Your task to perform on an android device: Search for the best rated wireless headphones on Amazon. Image 0: 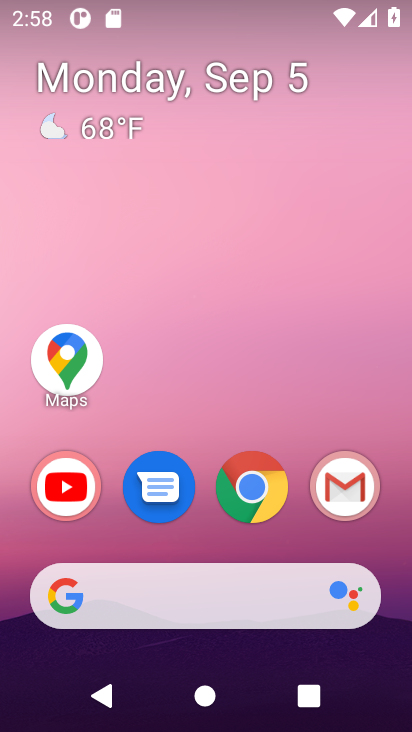
Step 0: click (246, 497)
Your task to perform on an android device: Search for the best rated wireless headphones on Amazon. Image 1: 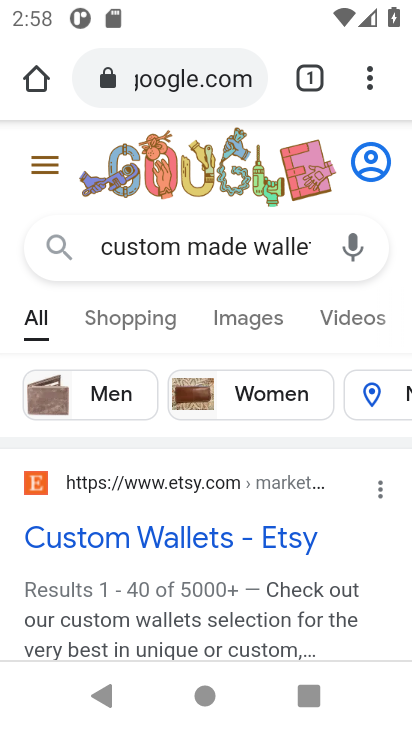
Step 1: click (176, 84)
Your task to perform on an android device: Search for the best rated wireless headphones on Amazon. Image 2: 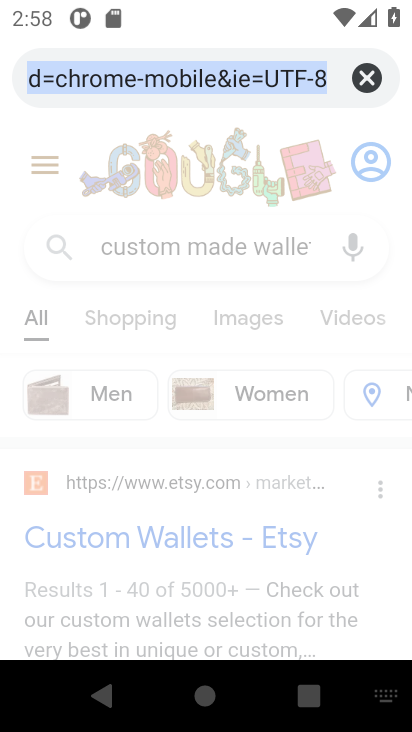
Step 2: click (363, 80)
Your task to perform on an android device: Search for the best rated wireless headphones on Amazon. Image 3: 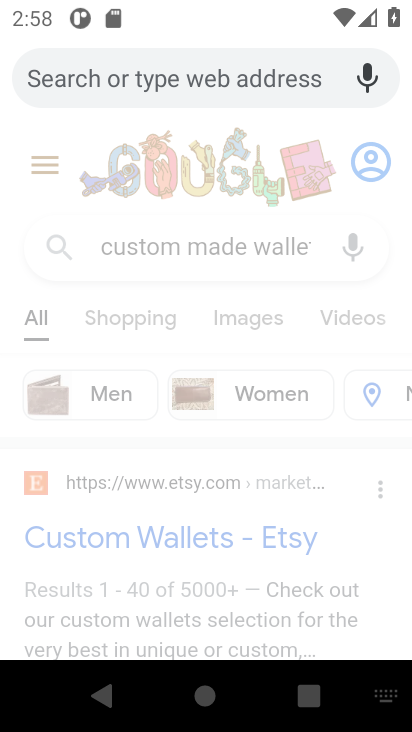
Step 3: type "the best rated wireless headphones on Amazon."
Your task to perform on an android device: Search for the best rated wireless headphones on Amazon. Image 4: 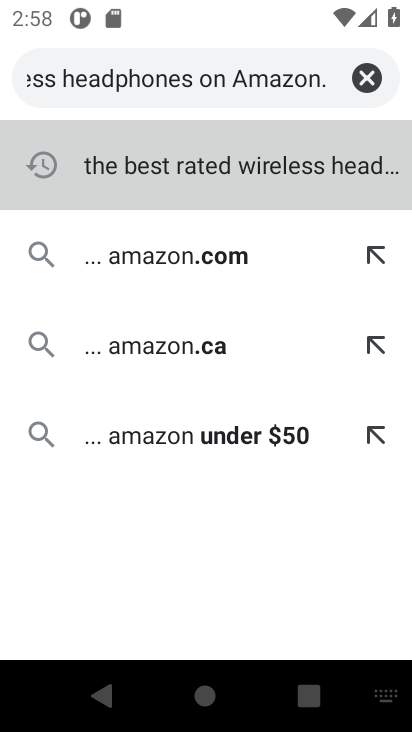
Step 4: click (177, 172)
Your task to perform on an android device: Search for the best rated wireless headphones on Amazon. Image 5: 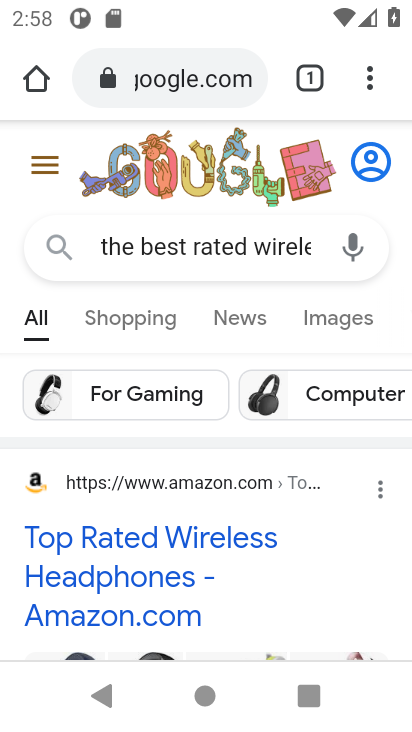
Step 5: drag from (327, 587) to (234, 242)
Your task to perform on an android device: Search for the best rated wireless headphones on Amazon. Image 6: 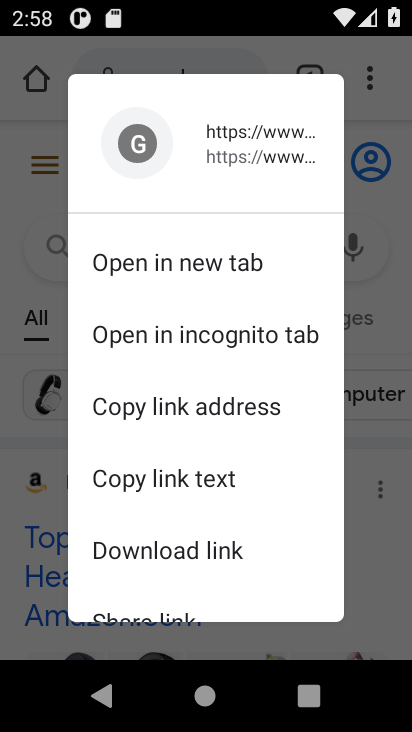
Step 6: click (371, 269)
Your task to perform on an android device: Search for the best rated wireless headphones on Amazon. Image 7: 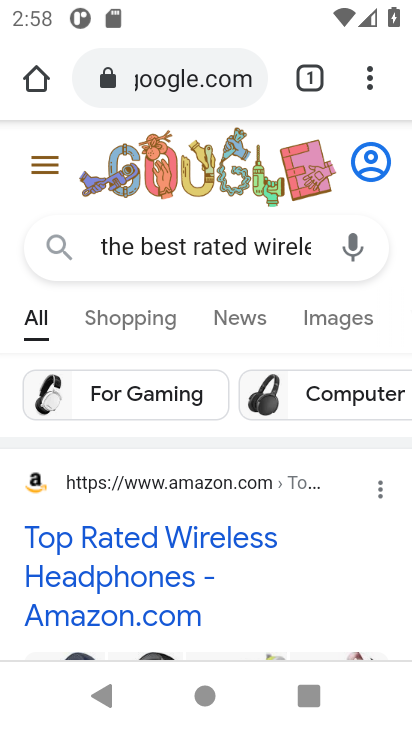
Step 7: task complete